Your task to perform on an android device: Clear all items from cart on target.com. Image 0: 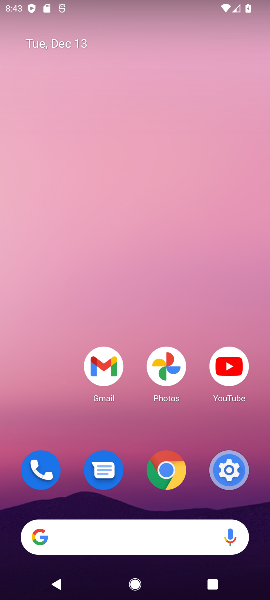
Step 0: press home button
Your task to perform on an android device: Clear all items from cart on target.com. Image 1: 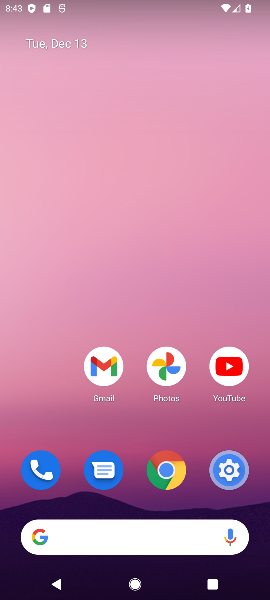
Step 1: click (67, 536)
Your task to perform on an android device: Clear all items from cart on target.com. Image 2: 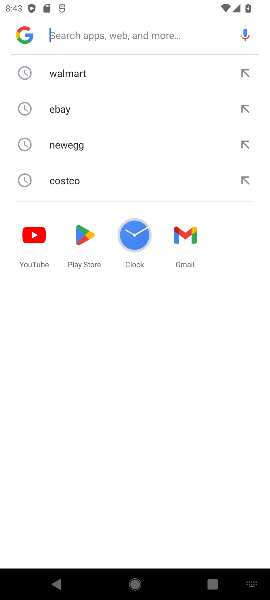
Step 2: type "target.com"
Your task to perform on an android device: Clear all items from cart on target.com. Image 3: 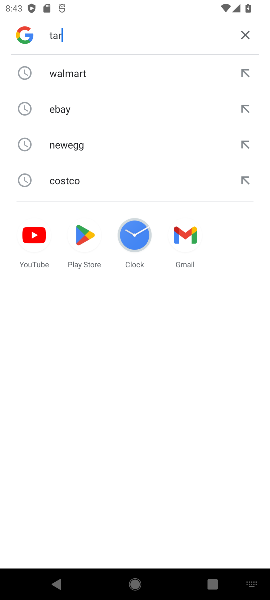
Step 3: press enter
Your task to perform on an android device: Clear all items from cart on target.com. Image 4: 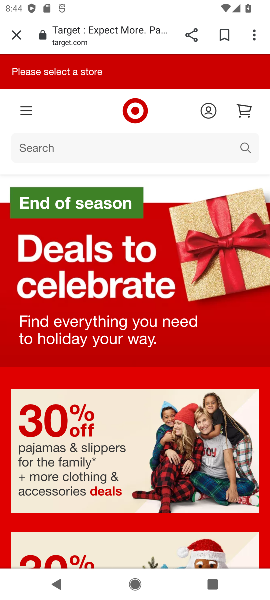
Step 4: click (244, 109)
Your task to perform on an android device: Clear all items from cart on target.com. Image 5: 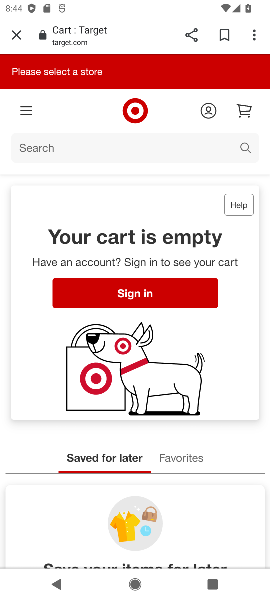
Step 5: task complete